Your task to perform on an android device: open app "Microsoft Outlook" (install if not already installed) Image 0: 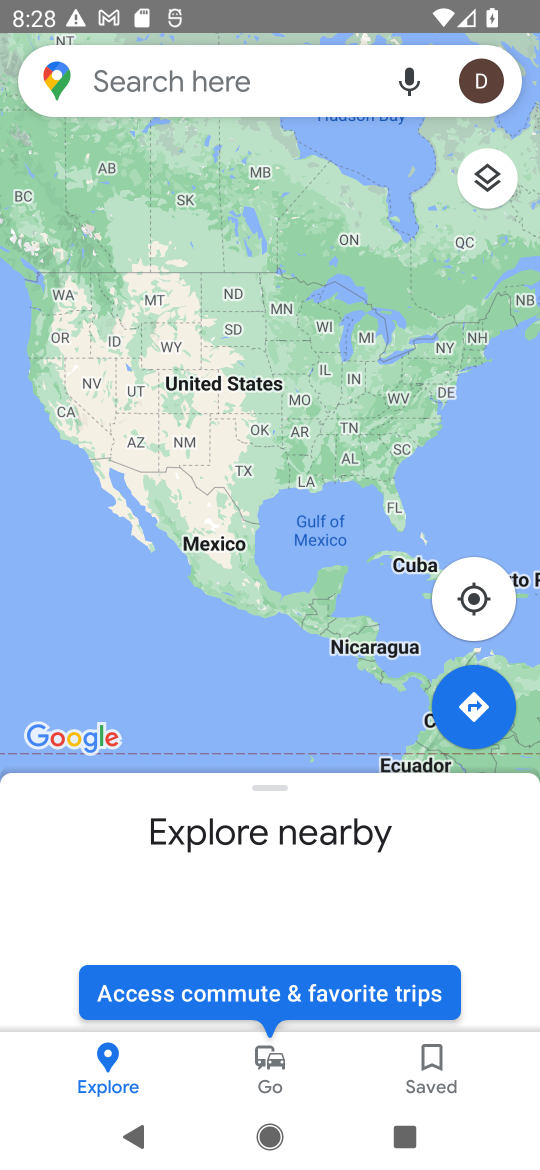
Step 0: press home button
Your task to perform on an android device: open app "Microsoft Outlook" (install if not already installed) Image 1: 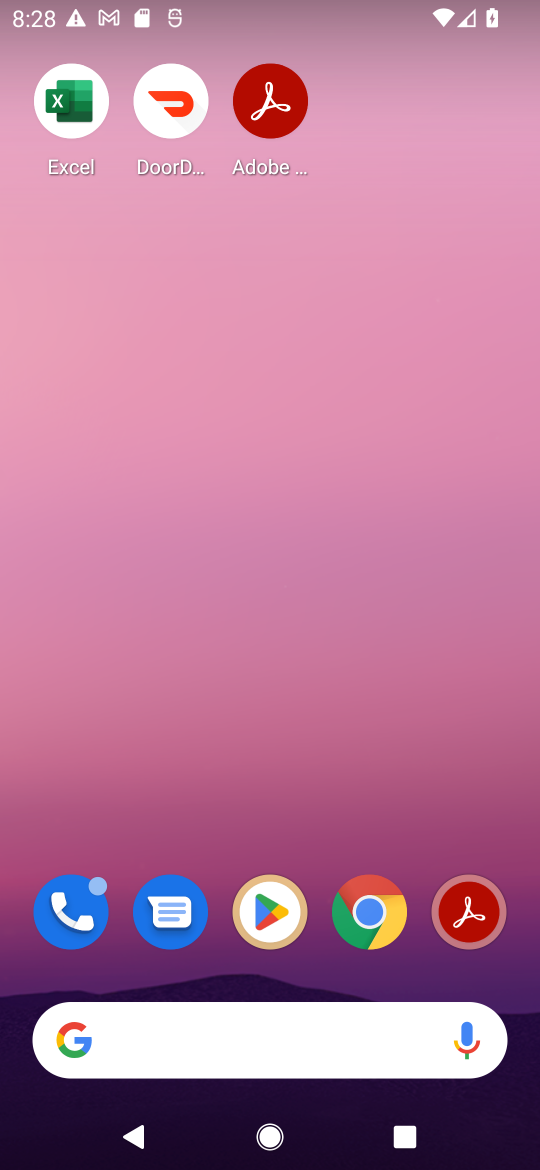
Step 1: drag from (288, 996) to (524, 179)
Your task to perform on an android device: open app "Microsoft Outlook" (install if not already installed) Image 2: 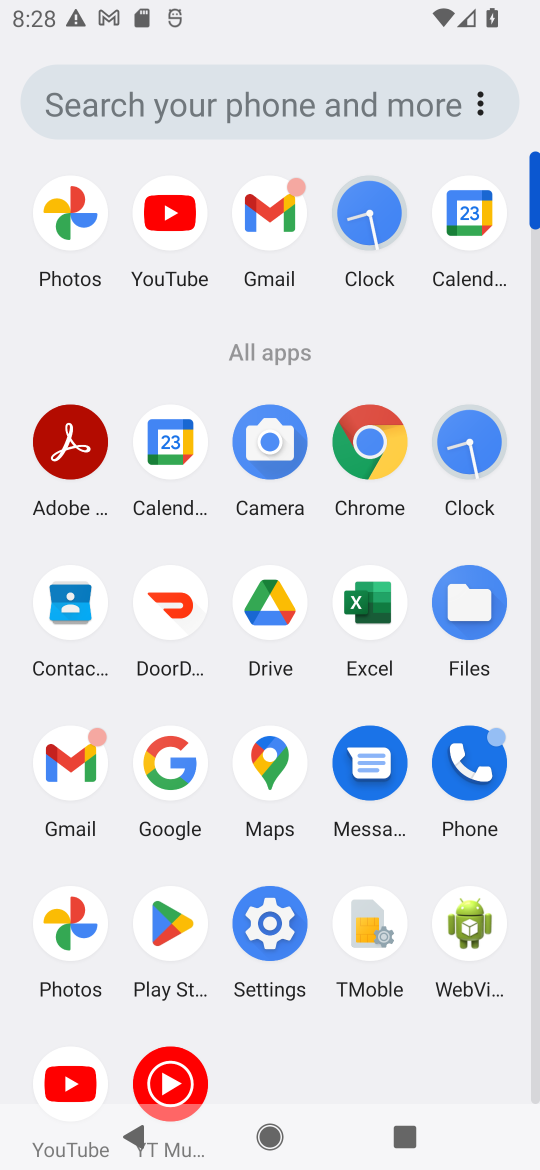
Step 2: click (174, 918)
Your task to perform on an android device: open app "Microsoft Outlook" (install if not already installed) Image 3: 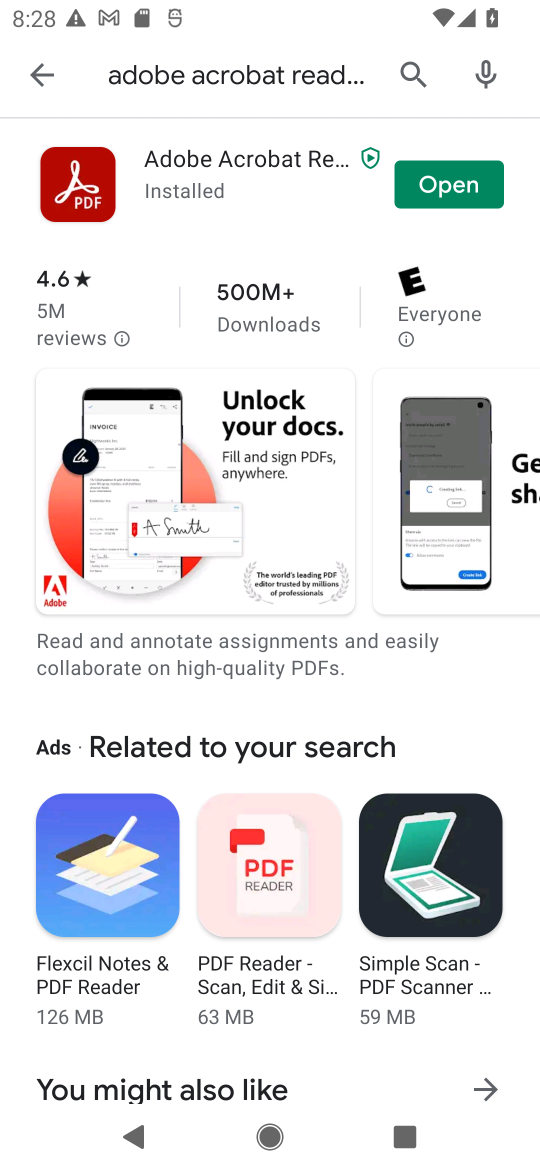
Step 3: press back button
Your task to perform on an android device: open app "Microsoft Outlook" (install if not already installed) Image 4: 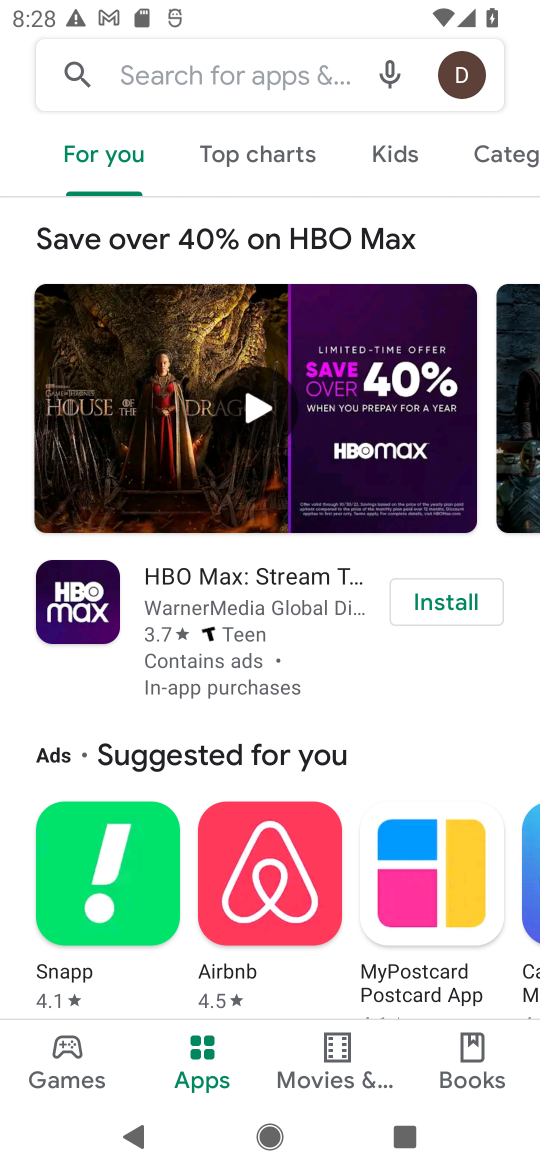
Step 4: click (211, 85)
Your task to perform on an android device: open app "Microsoft Outlook" (install if not already installed) Image 5: 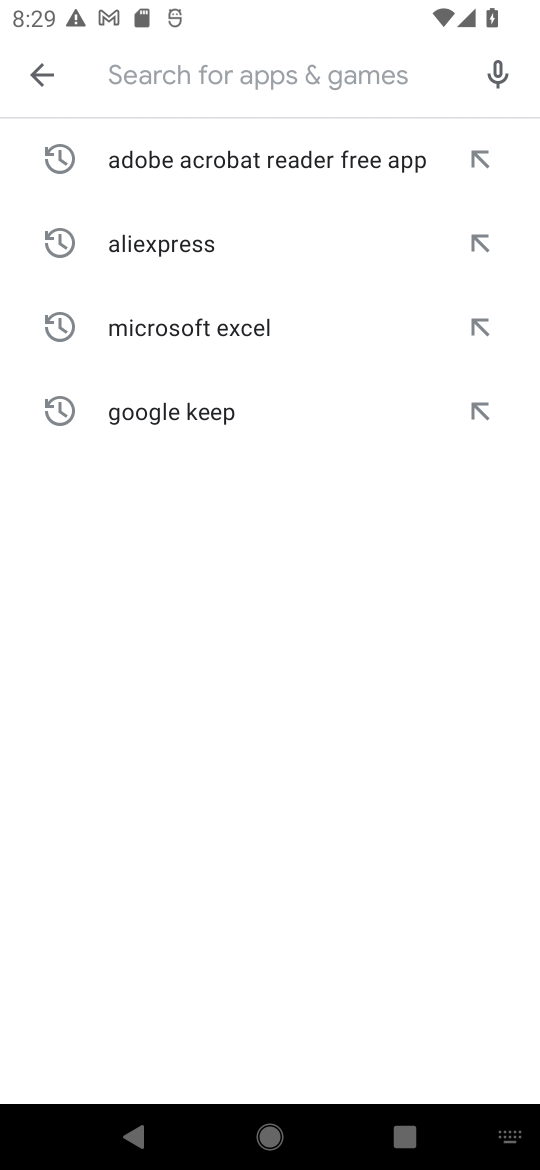
Step 5: type "Microsoft Outlook"
Your task to perform on an android device: open app "Microsoft Outlook" (install if not already installed) Image 6: 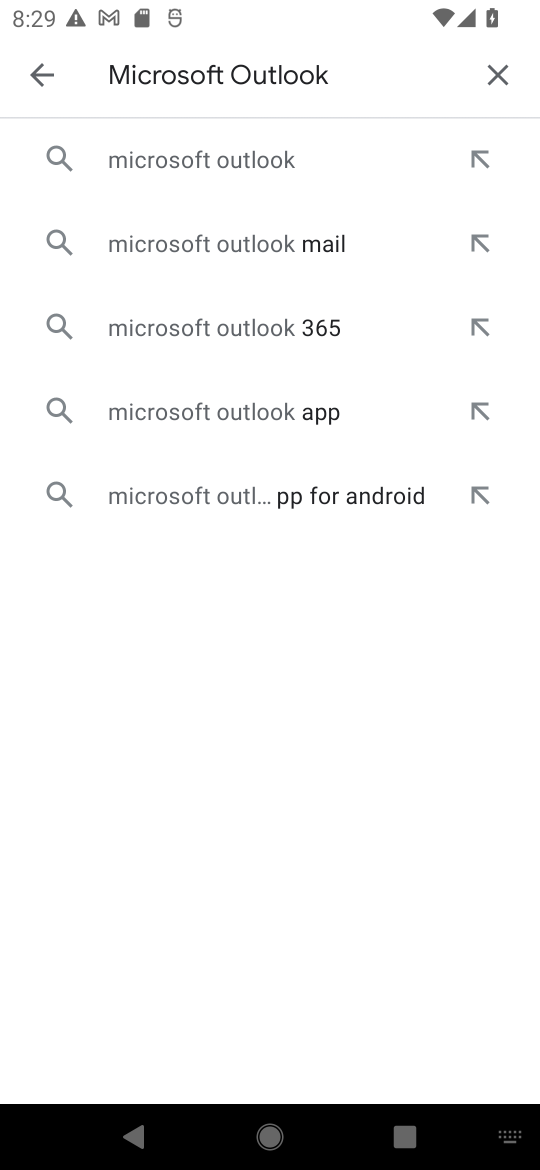
Step 6: click (184, 169)
Your task to perform on an android device: open app "Microsoft Outlook" (install if not already installed) Image 7: 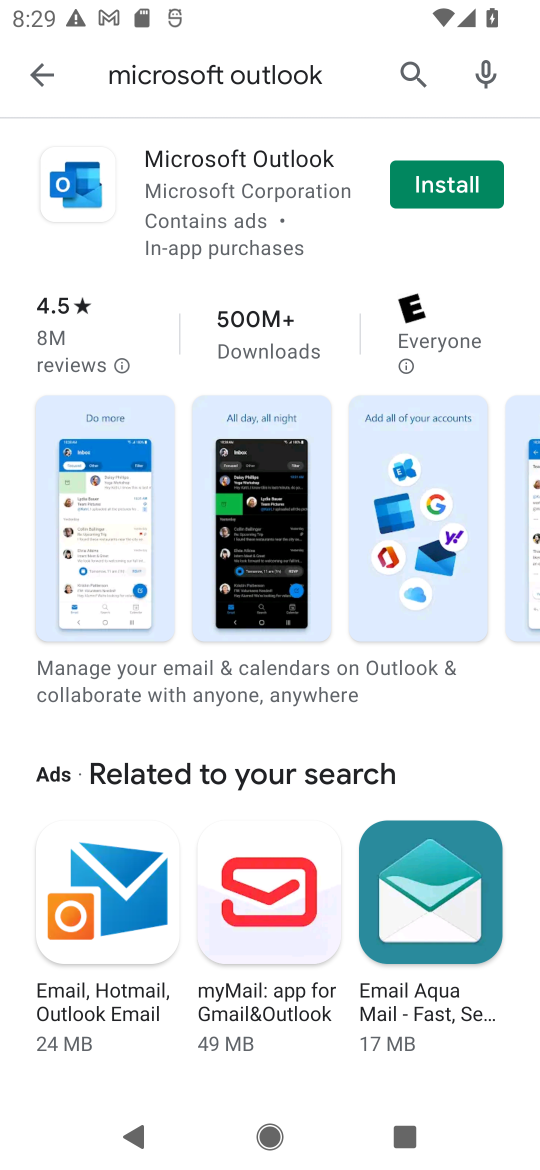
Step 7: click (452, 179)
Your task to perform on an android device: open app "Microsoft Outlook" (install if not already installed) Image 8: 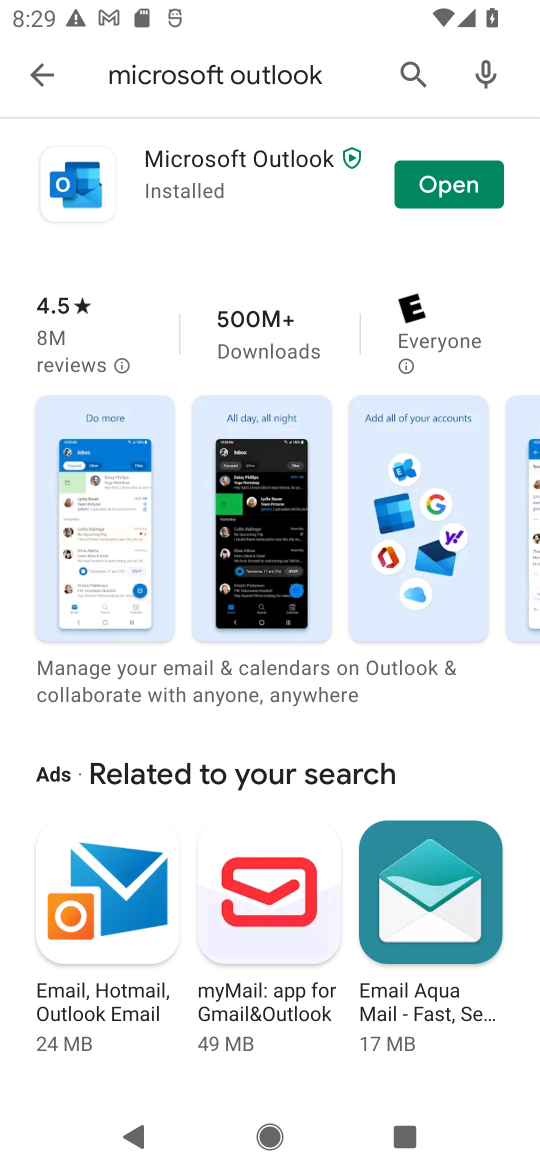
Step 8: click (458, 188)
Your task to perform on an android device: open app "Microsoft Outlook" (install if not already installed) Image 9: 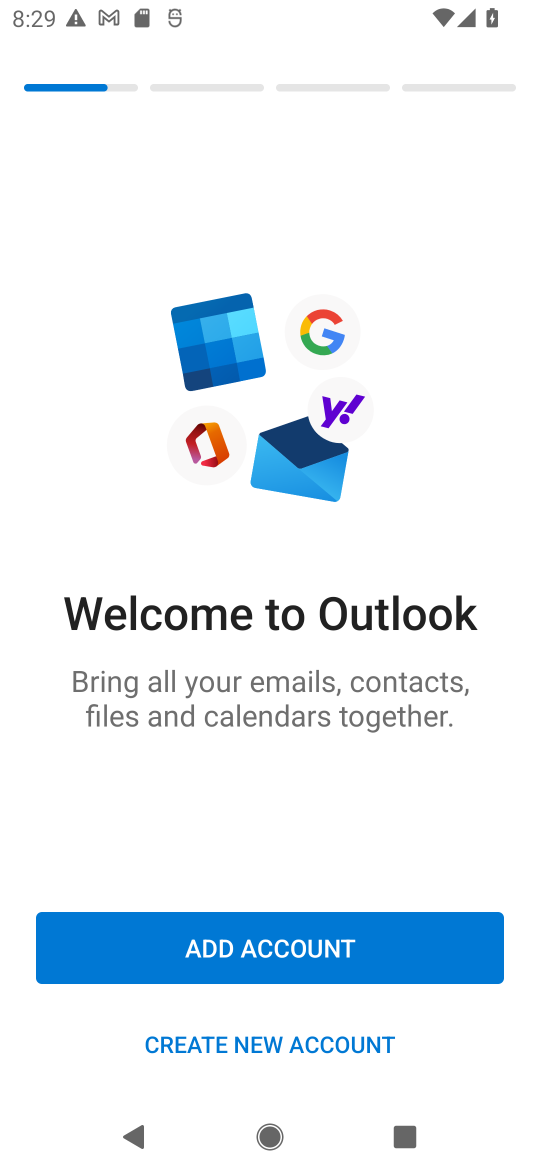
Step 9: task complete